Your task to perform on an android device: set an alarm Image 0: 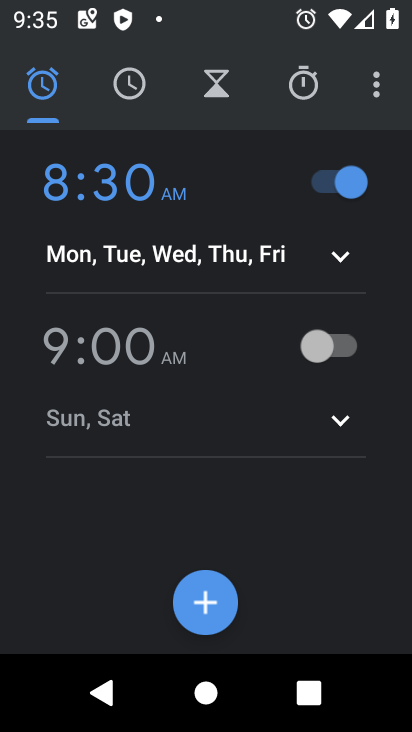
Step 0: press home button
Your task to perform on an android device: set an alarm Image 1: 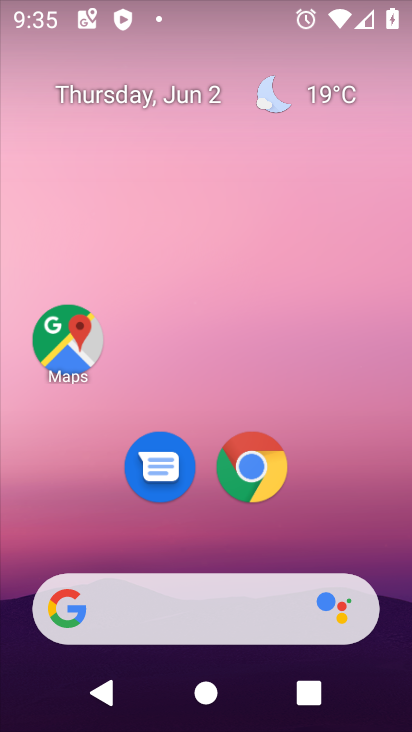
Step 1: drag from (209, 542) to (259, 212)
Your task to perform on an android device: set an alarm Image 2: 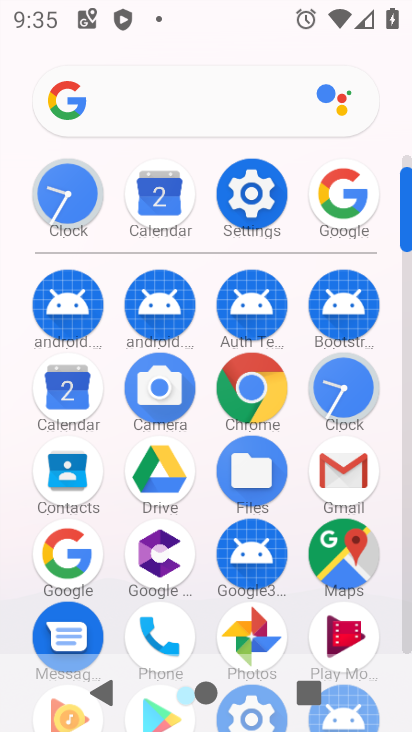
Step 2: click (51, 197)
Your task to perform on an android device: set an alarm Image 3: 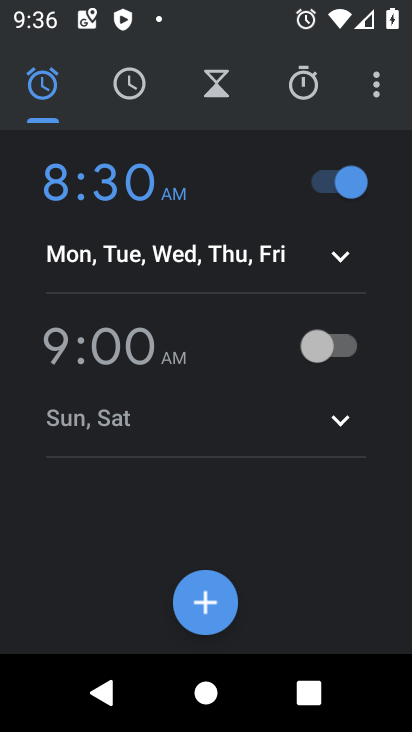
Step 3: click (342, 344)
Your task to perform on an android device: set an alarm Image 4: 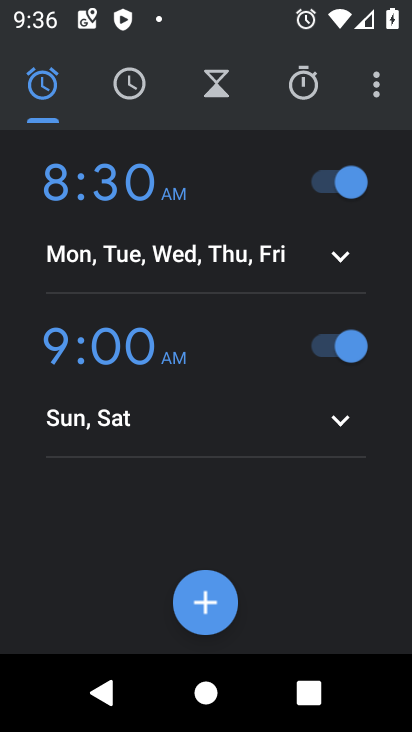
Step 4: task complete